Your task to perform on an android device: change the clock display to analog Image 0: 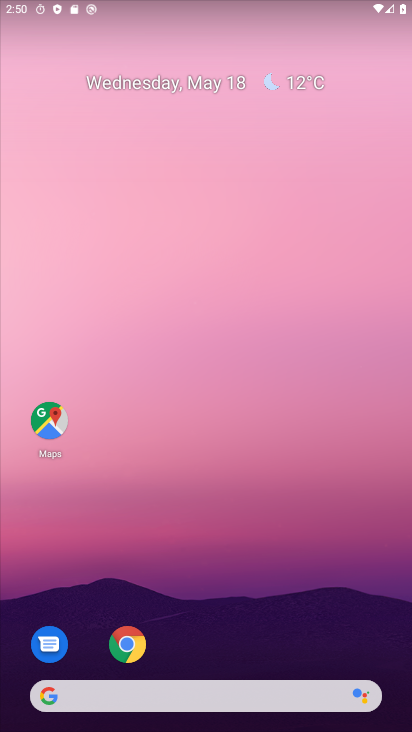
Step 0: drag from (349, 462) to (317, 301)
Your task to perform on an android device: change the clock display to analog Image 1: 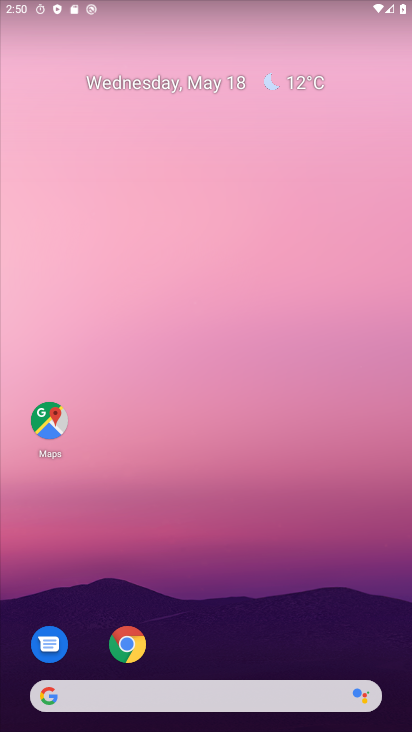
Step 1: drag from (346, 336) to (296, 66)
Your task to perform on an android device: change the clock display to analog Image 2: 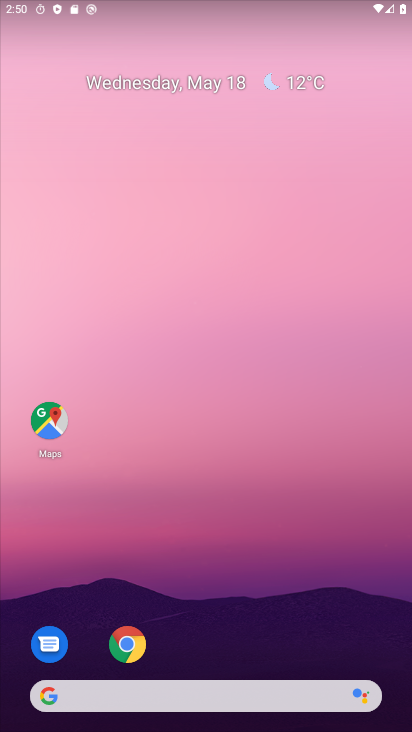
Step 2: drag from (400, 703) to (382, 160)
Your task to perform on an android device: change the clock display to analog Image 3: 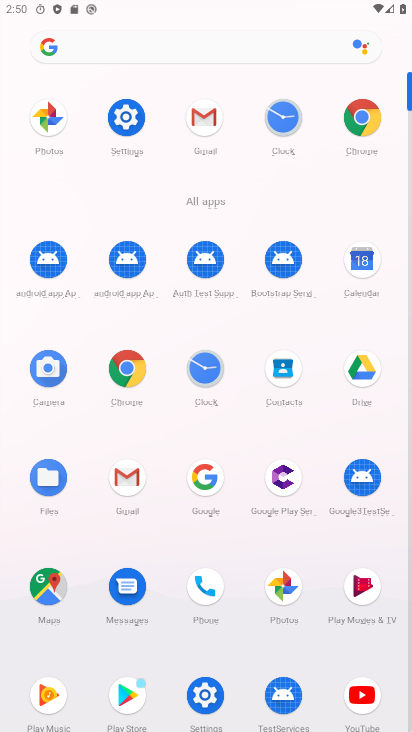
Step 3: click (130, 107)
Your task to perform on an android device: change the clock display to analog Image 4: 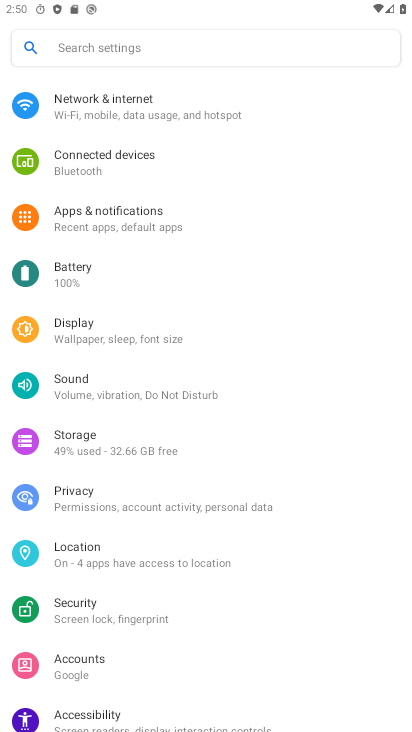
Step 4: press back button
Your task to perform on an android device: change the clock display to analog Image 5: 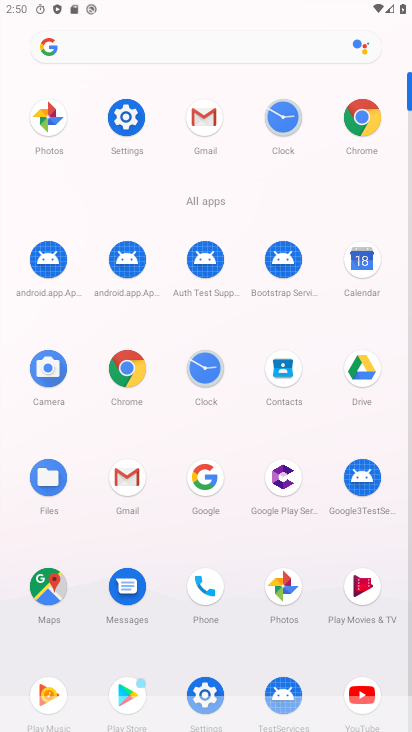
Step 5: press back button
Your task to perform on an android device: change the clock display to analog Image 6: 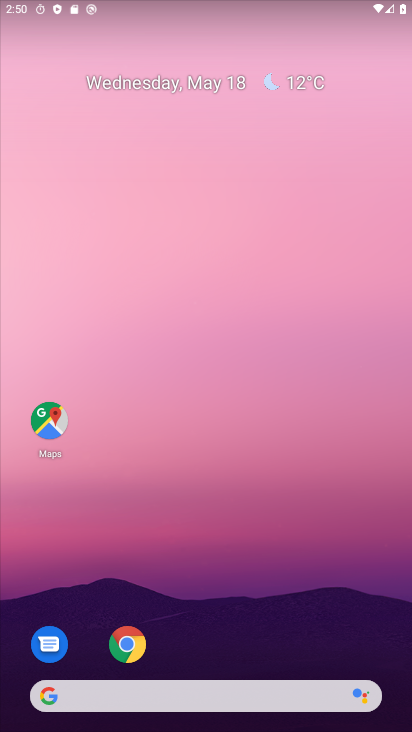
Step 6: drag from (396, 694) to (358, 275)
Your task to perform on an android device: change the clock display to analog Image 7: 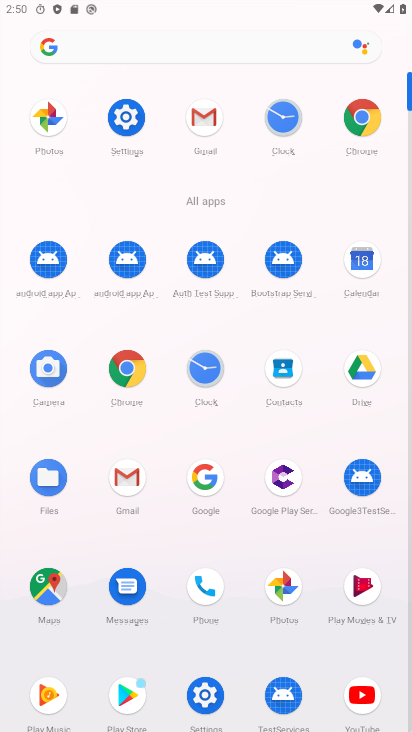
Step 7: click (196, 371)
Your task to perform on an android device: change the clock display to analog Image 8: 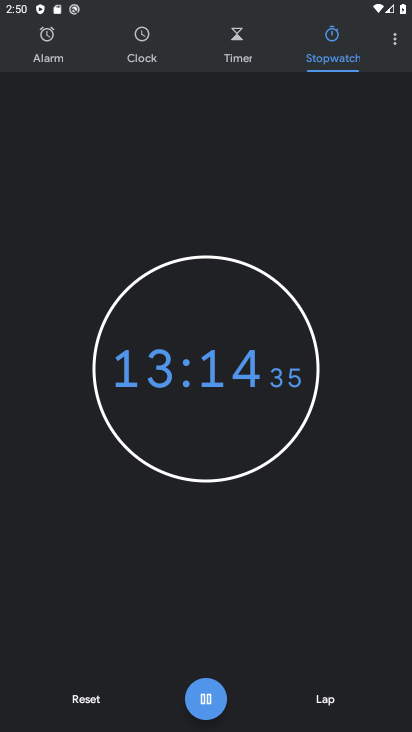
Step 8: click (398, 37)
Your task to perform on an android device: change the clock display to analog Image 9: 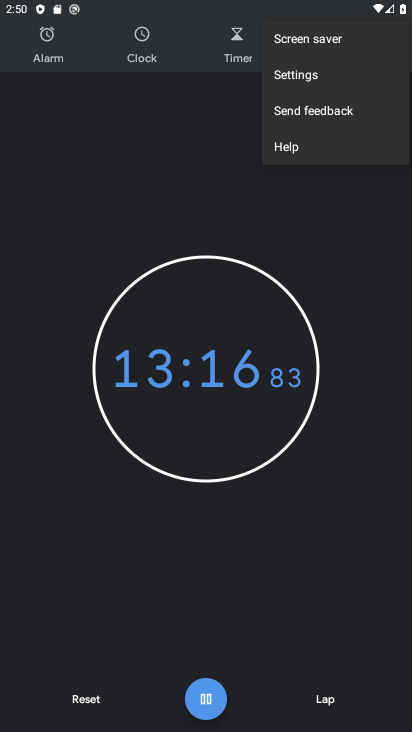
Step 9: click (310, 73)
Your task to perform on an android device: change the clock display to analog Image 10: 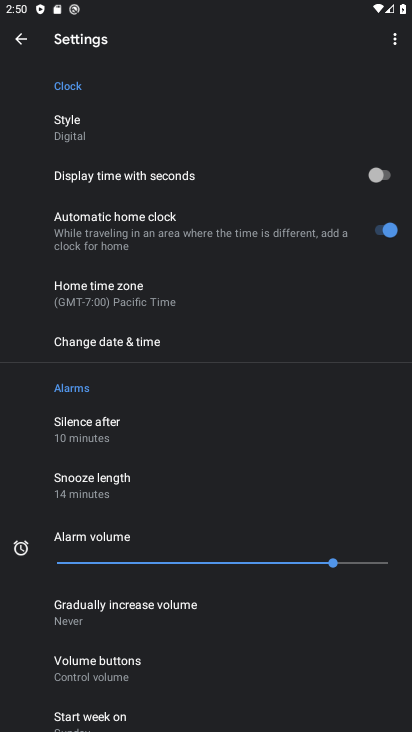
Step 10: click (76, 124)
Your task to perform on an android device: change the clock display to analog Image 11: 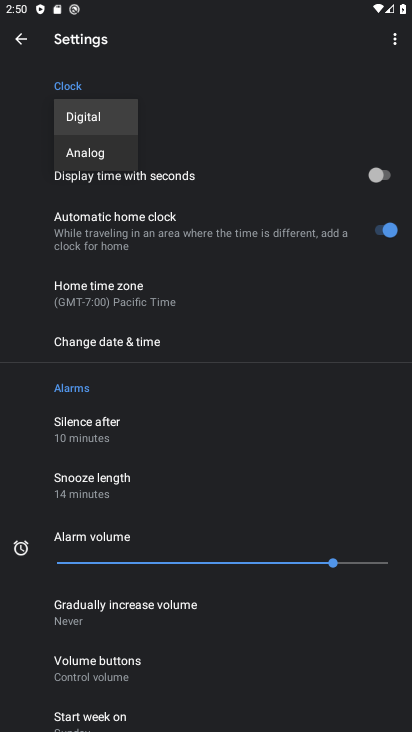
Step 11: click (106, 116)
Your task to perform on an android device: change the clock display to analog Image 12: 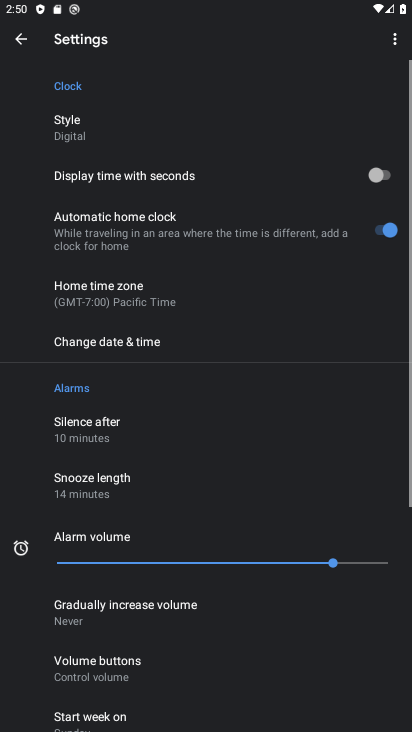
Step 12: click (100, 127)
Your task to perform on an android device: change the clock display to analog Image 13: 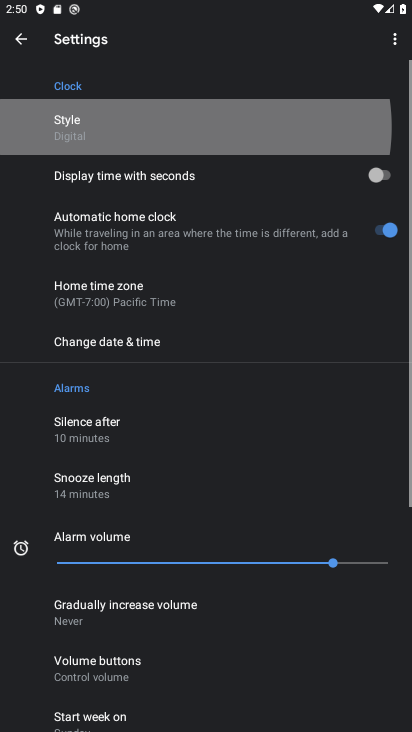
Step 13: click (100, 142)
Your task to perform on an android device: change the clock display to analog Image 14: 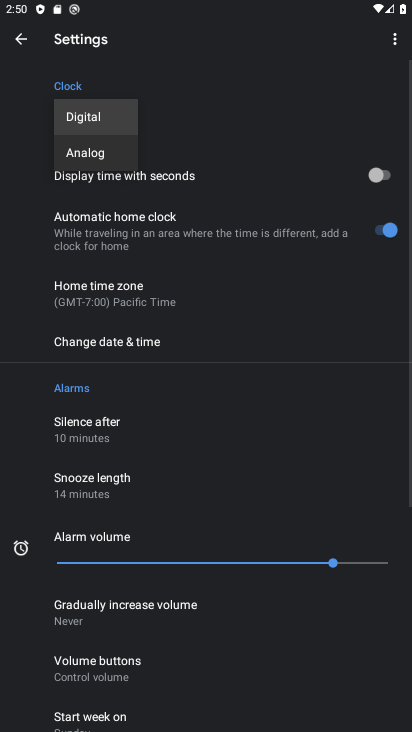
Step 14: click (66, 126)
Your task to perform on an android device: change the clock display to analog Image 15: 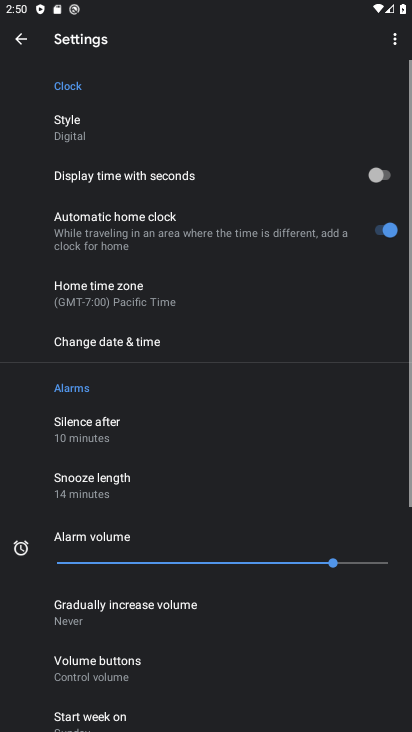
Step 15: click (101, 158)
Your task to perform on an android device: change the clock display to analog Image 16: 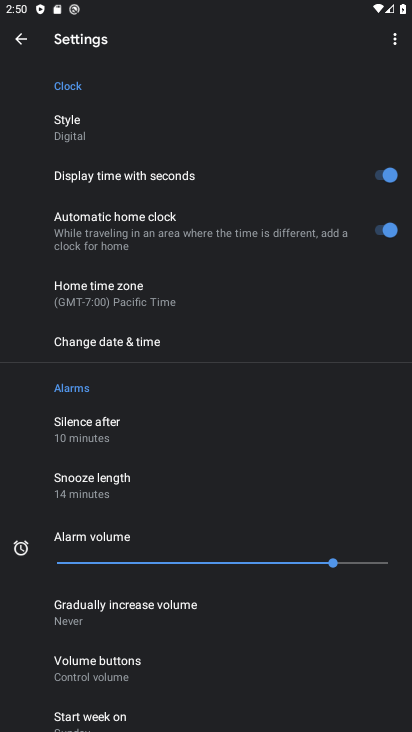
Step 16: task complete